Your task to perform on an android device: turn off improve location accuracy Image 0: 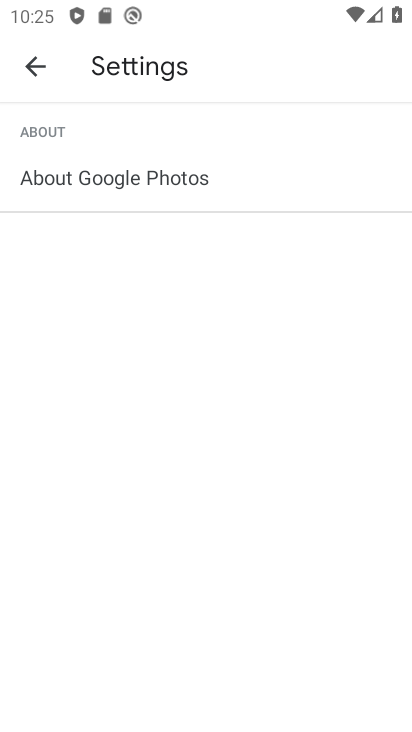
Step 0: press home button
Your task to perform on an android device: turn off improve location accuracy Image 1: 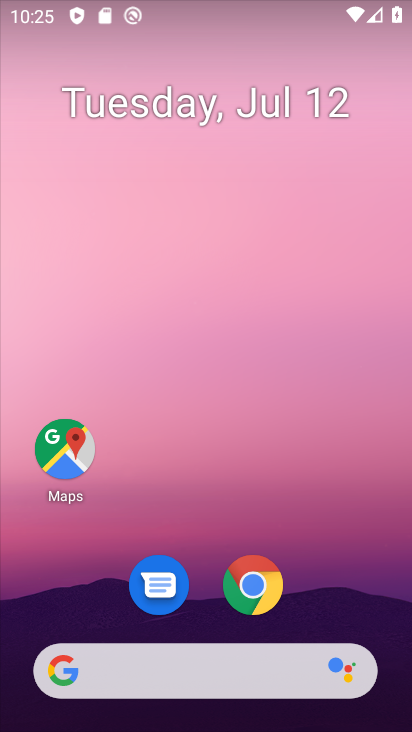
Step 1: drag from (326, 522) to (353, 26)
Your task to perform on an android device: turn off improve location accuracy Image 2: 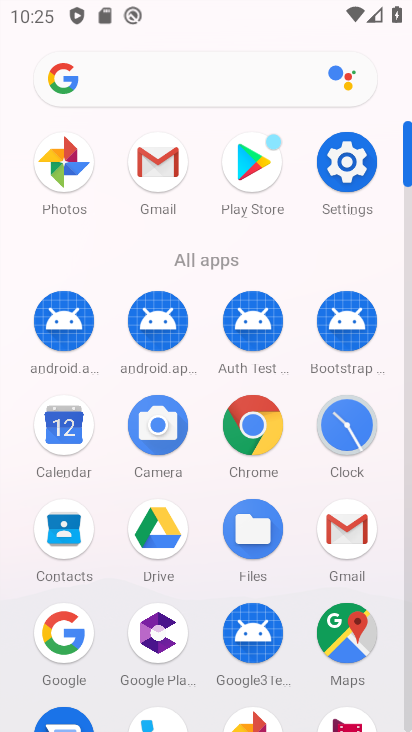
Step 2: click (339, 163)
Your task to perform on an android device: turn off improve location accuracy Image 3: 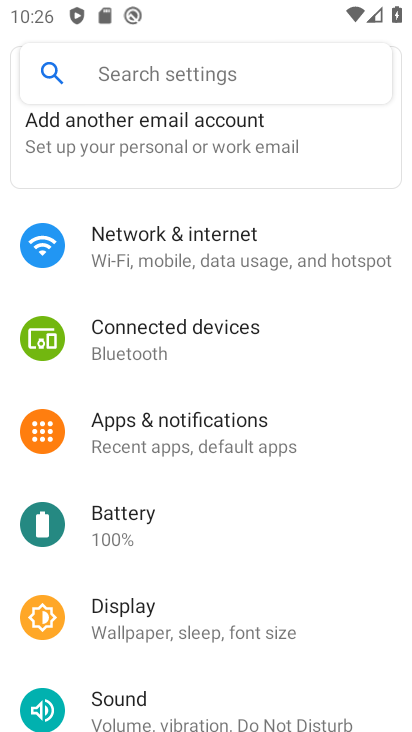
Step 3: drag from (210, 516) to (263, 295)
Your task to perform on an android device: turn off improve location accuracy Image 4: 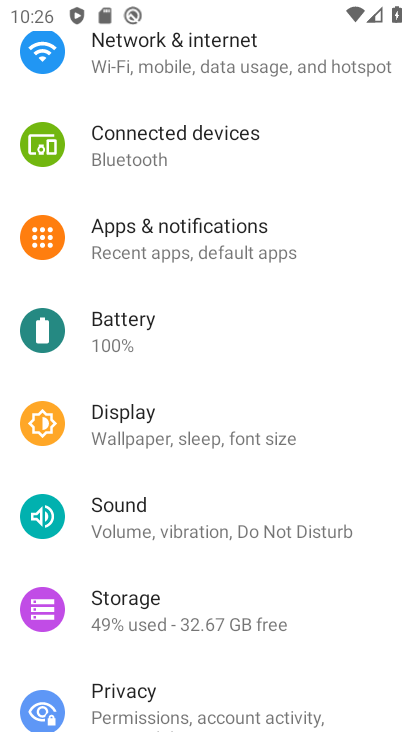
Step 4: drag from (232, 451) to (236, 141)
Your task to perform on an android device: turn off improve location accuracy Image 5: 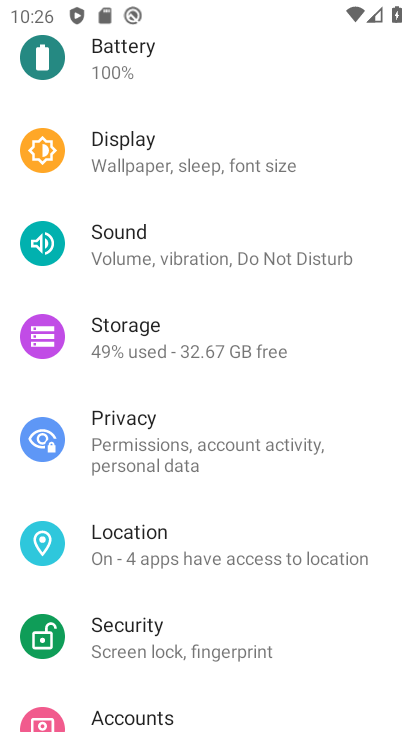
Step 5: click (207, 551)
Your task to perform on an android device: turn off improve location accuracy Image 6: 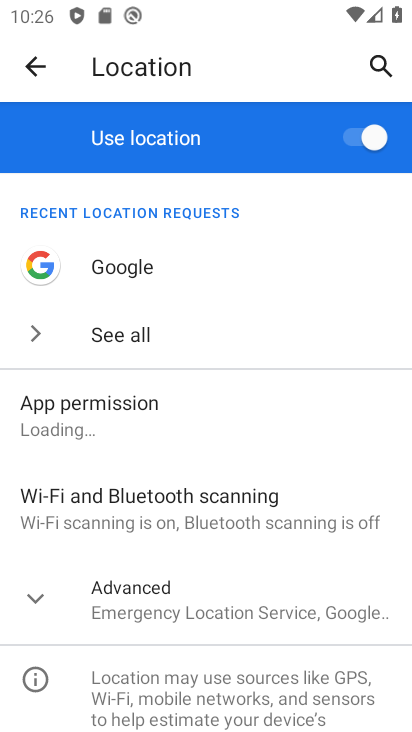
Step 6: click (36, 595)
Your task to perform on an android device: turn off improve location accuracy Image 7: 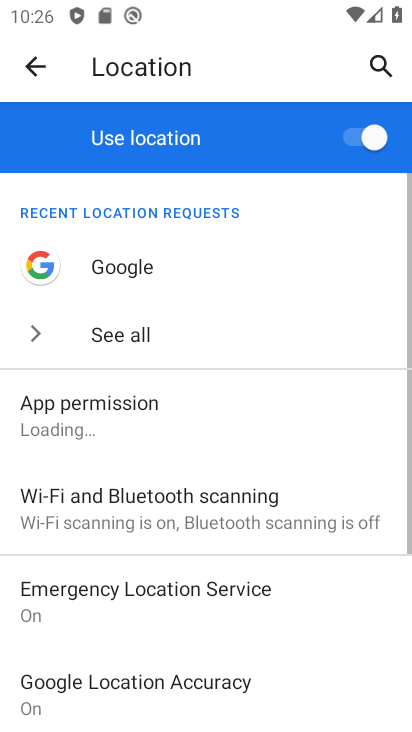
Step 7: drag from (290, 645) to (302, 299)
Your task to perform on an android device: turn off improve location accuracy Image 8: 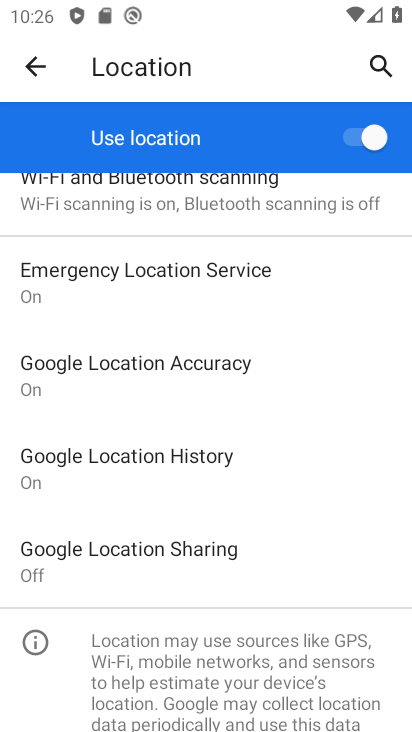
Step 8: click (241, 371)
Your task to perform on an android device: turn off improve location accuracy Image 9: 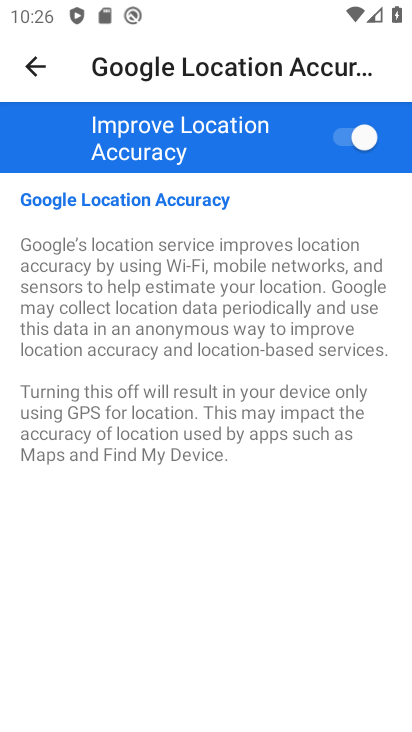
Step 9: click (350, 135)
Your task to perform on an android device: turn off improve location accuracy Image 10: 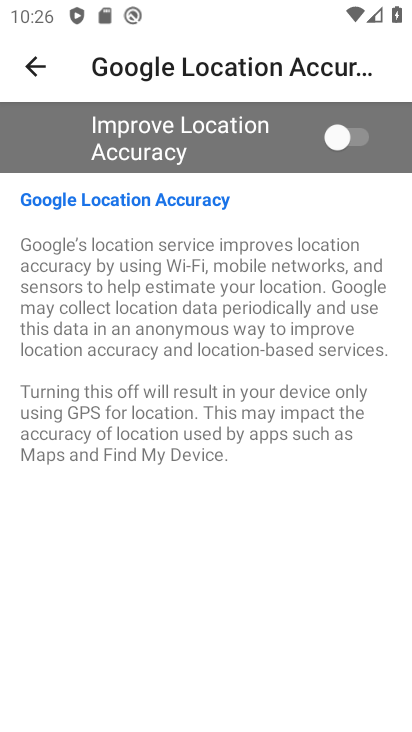
Step 10: task complete